Your task to perform on an android device: Open network settings Image 0: 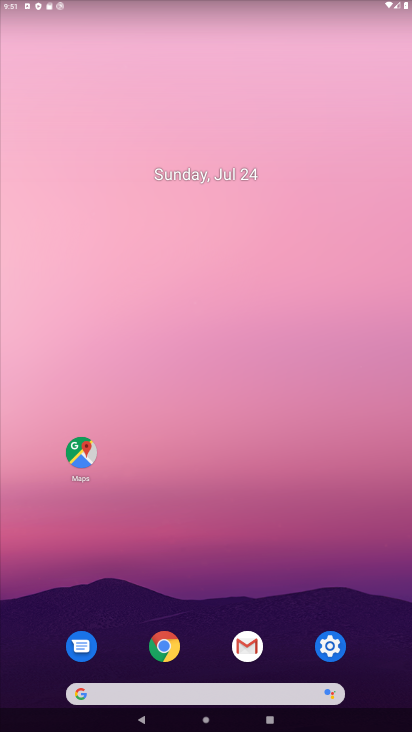
Step 0: click (326, 644)
Your task to perform on an android device: Open network settings Image 1: 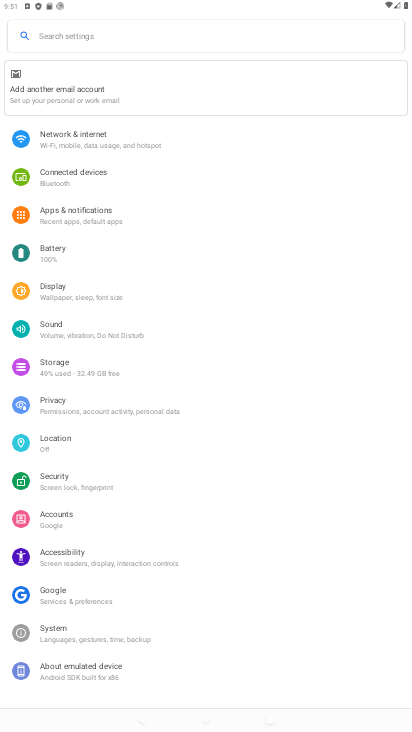
Step 1: click (76, 145)
Your task to perform on an android device: Open network settings Image 2: 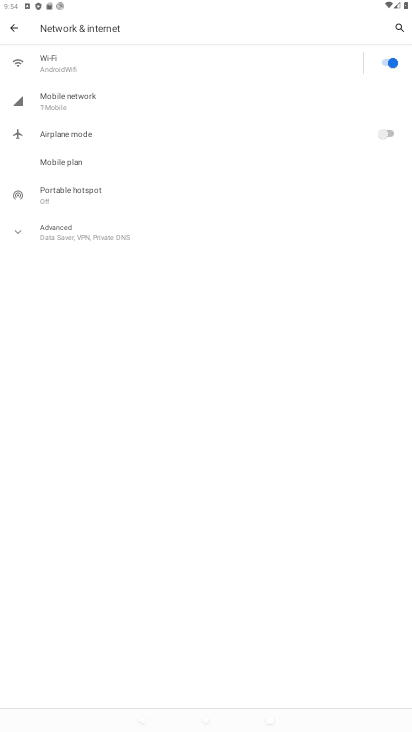
Step 2: task complete